Your task to perform on an android device: Do I have any events this weekend? Image 0: 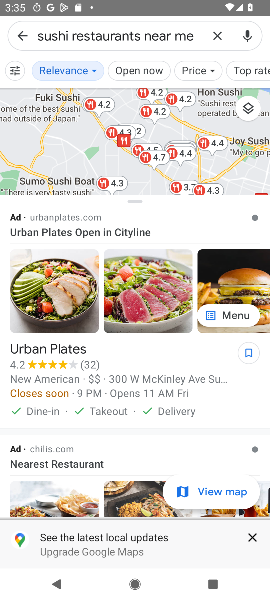
Step 0: press home button
Your task to perform on an android device: Do I have any events this weekend? Image 1: 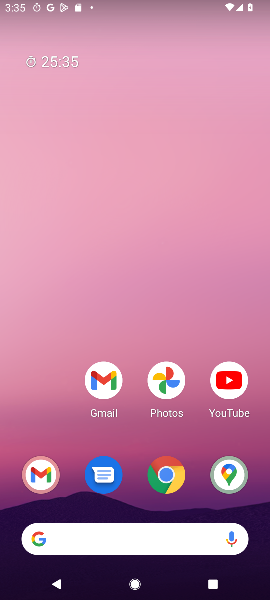
Step 1: drag from (66, 451) to (60, 254)
Your task to perform on an android device: Do I have any events this weekend? Image 2: 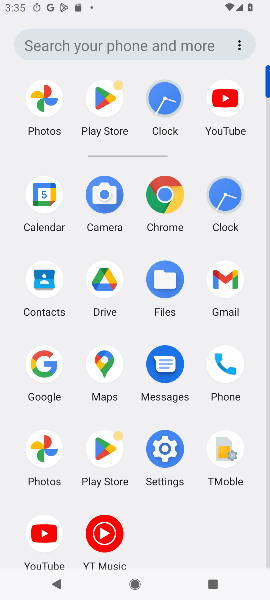
Step 2: click (41, 201)
Your task to perform on an android device: Do I have any events this weekend? Image 3: 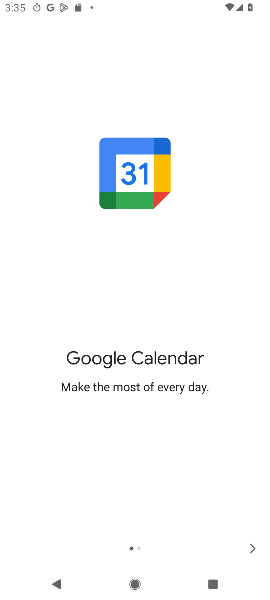
Step 3: click (247, 550)
Your task to perform on an android device: Do I have any events this weekend? Image 4: 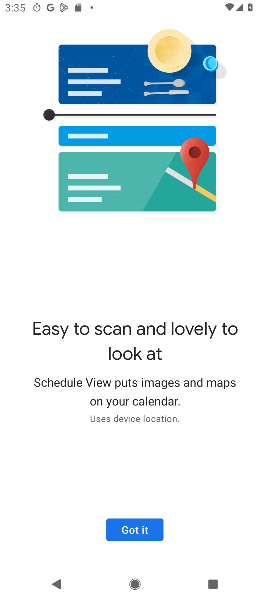
Step 4: click (138, 530)
Your task to perform on an android device: Do I have any events this weekend? Image 5: 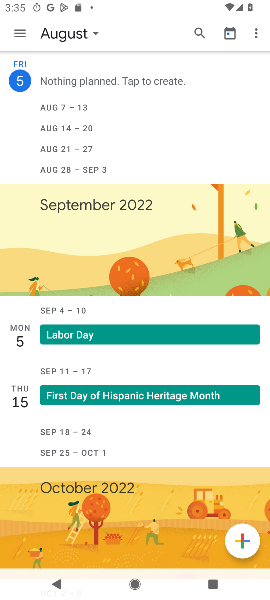
Step 5: click (93, 32)
Your task to perform on an android device: Do I have any events this weekend? Image 6: 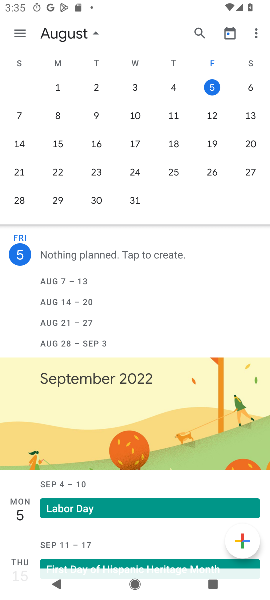
Step 6: click (250, 84)
Your task to perform on an android device: Do I have any events this weekend? Image 7: 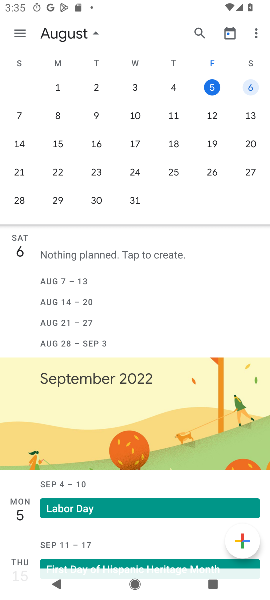
Step 7: task complete